Your task to perform on an android device: Go to Yahoo.com Image 0: 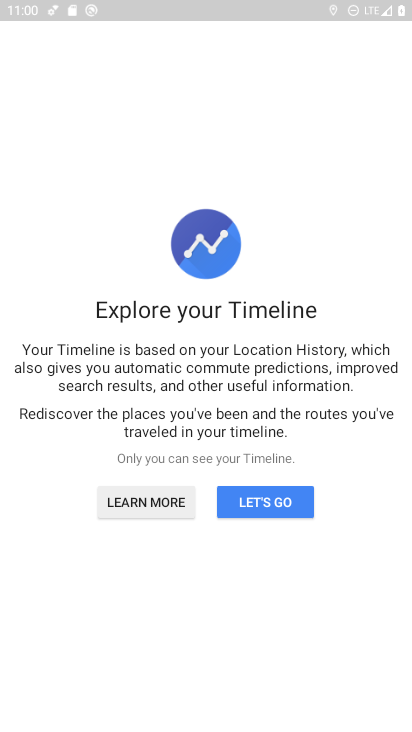
Step 0: press home button
Your task to perform on an android device: Go to Yahoo.com Image 1: 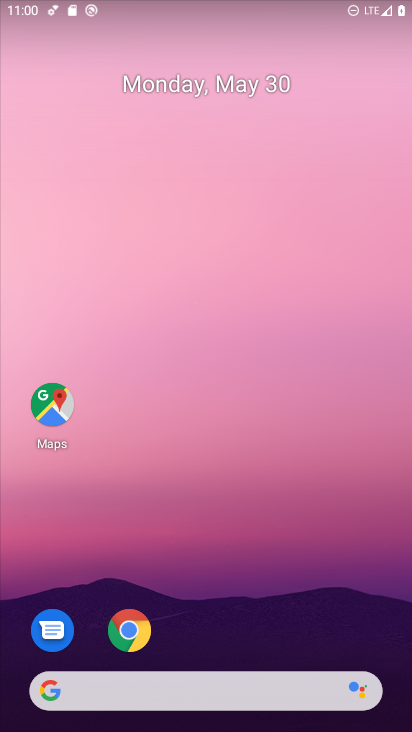
Step 1: click (131, 638)
Your task to perform on an android device: Go to Yahoo.com Image 2: 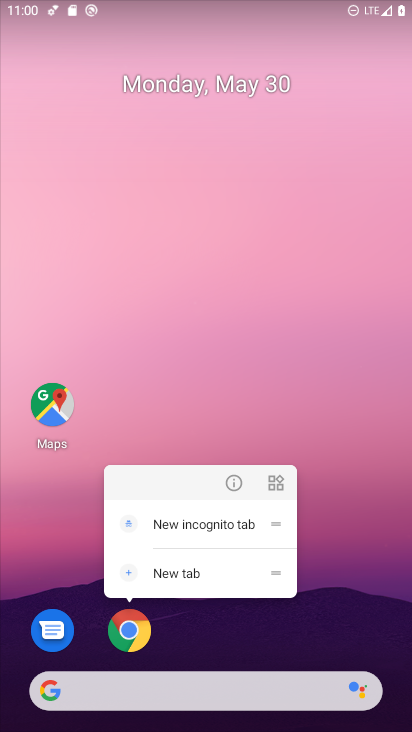
Step 2: click (232, 488)
Your task to perform on an android device: Go to Yahoo.com Image 3: 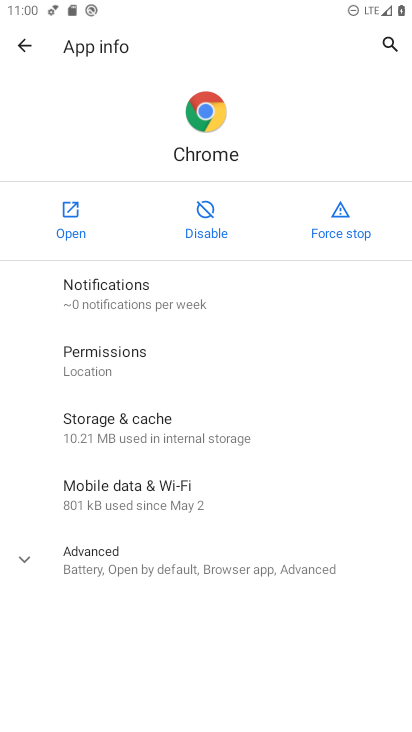
Step 3: click (60, 212)
Your task to perform on an android device: Go to Yahoo.com Image 4: 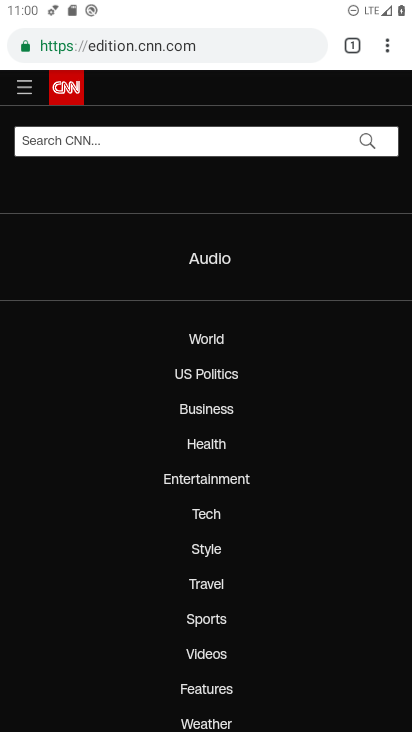
Step 4: click (130, 48)
Your task to perform on an android device: Go to Yahoo.com Image 5: 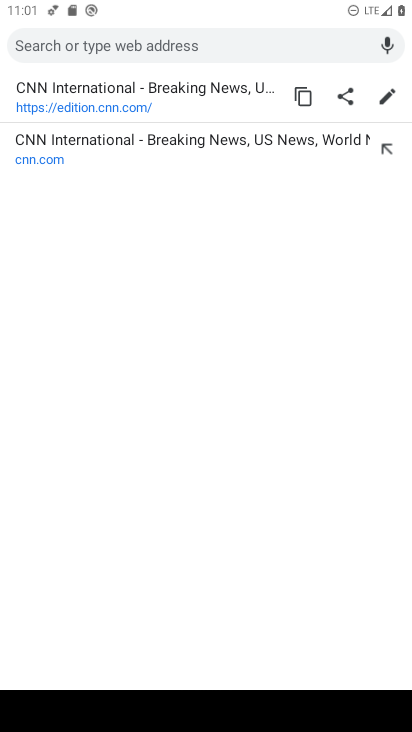
Step 5: type "Yahoo.com"
Your task to perform on an android device: Go to Yahoo.com Image 6: 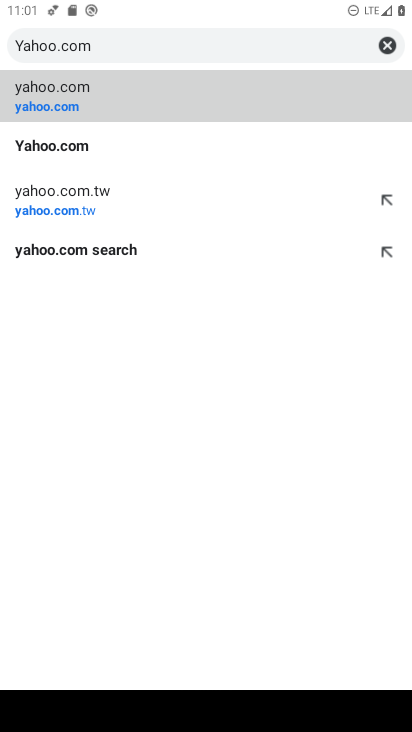
Step 6: click (178, 124)
Your task to perform on an android device: Go to Yahoo.com Image 7: 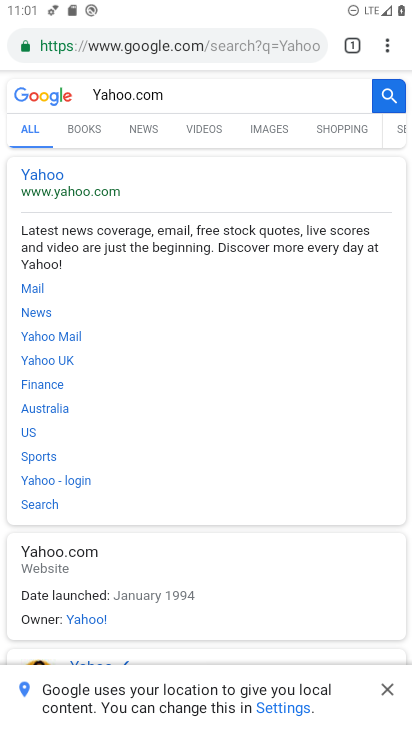
Step 7: task complete